Your task to perform on an android device: Open Android settings Image 0: 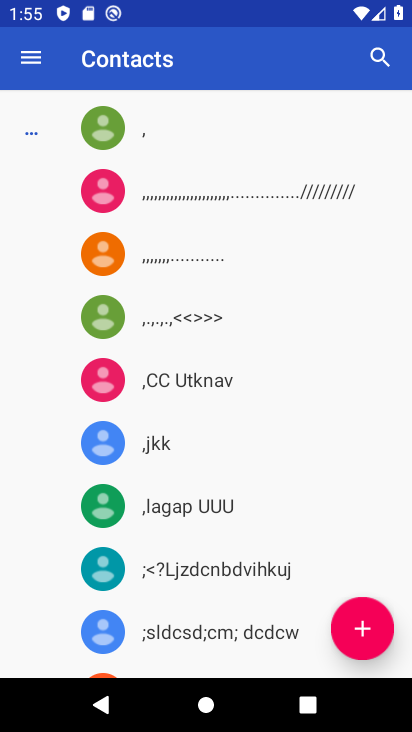
Step 0: press home button
Your task to perform on an android device: Open Android settings Image 1: 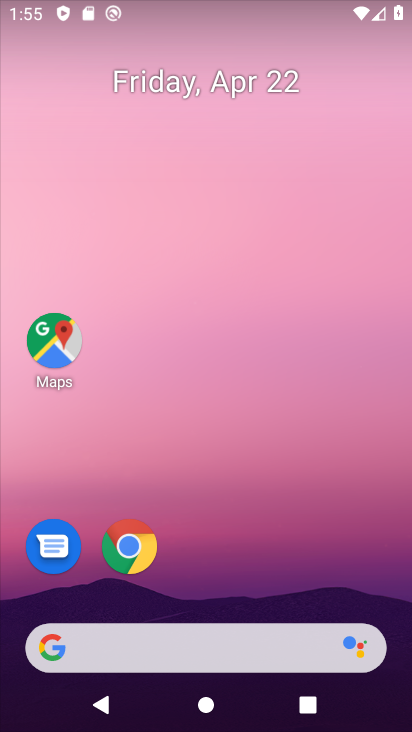
Step 1: drag from (246, 467) to (297, 125)
Your task to perform on an android device: Open Android settings Image 2: 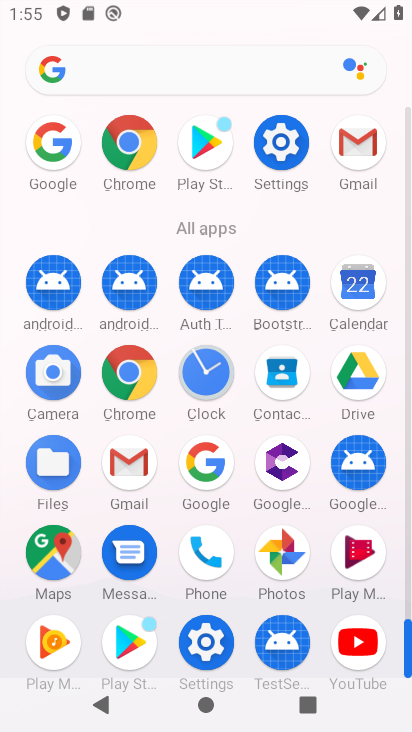
Step 2: click (280, 173)
Your task to perform on an android device: Open Android settings Image 3: 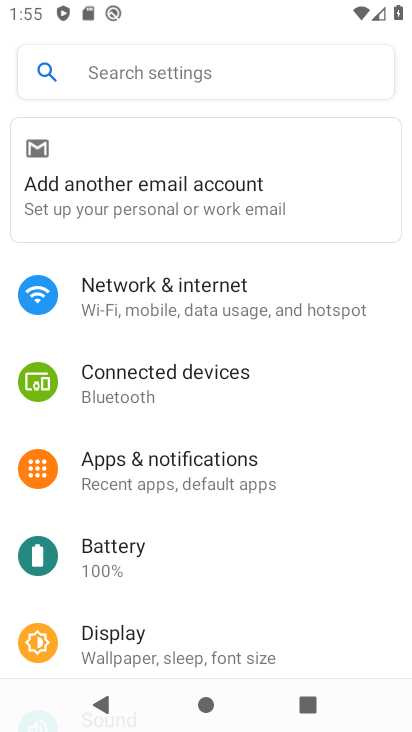
Step 3: drag from (229, 487) to (300, 183)
Your task to perform on an android device: Open Android settings Image 4: 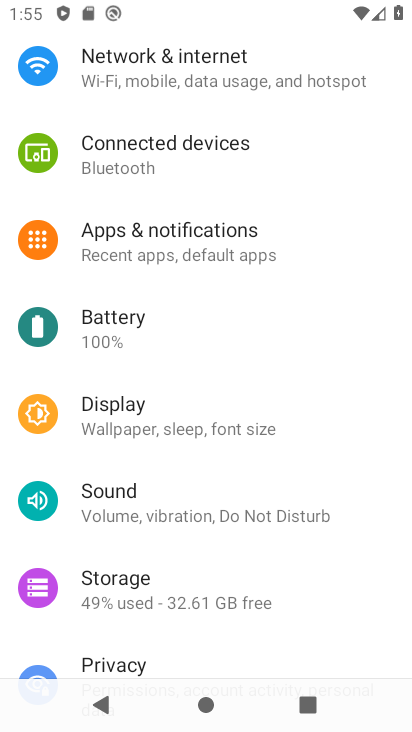
Step 4: drag from (237, 565) to (291, 175)
Your task to perform on an android device: Open Android settings Image 5: 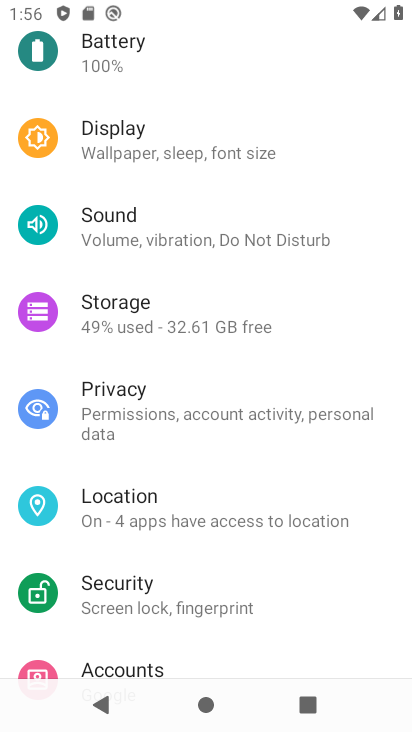
Step 5: drag from (212, 579) to (259, 175)
Your task to perform on an android device: Open Android settings Image 6: 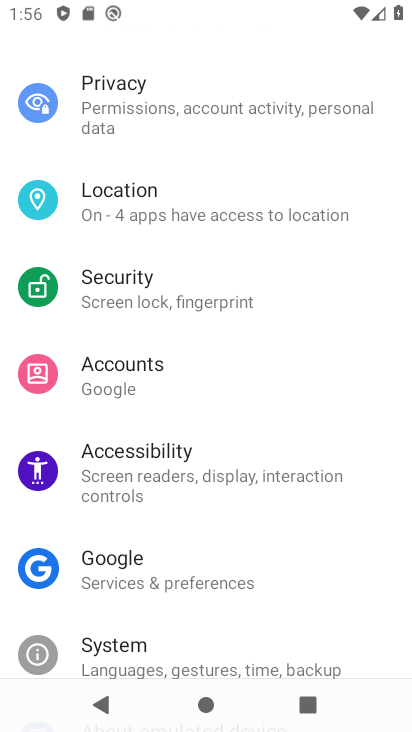
Step 6: drag from (230, 471) to (246, 267)
Your task to perform on an android device: Open Android settings Image 7: 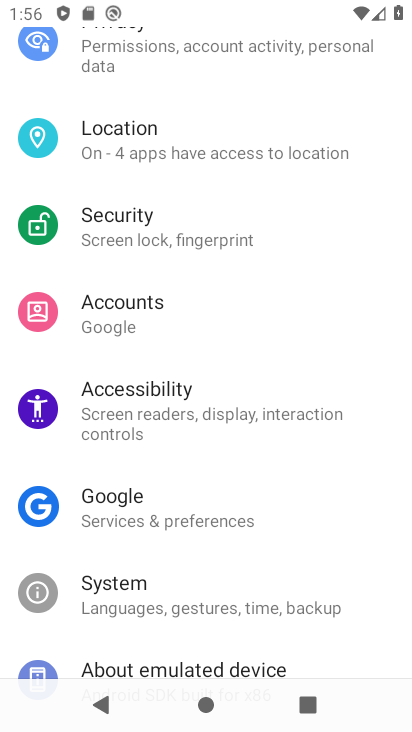
Step 7: drag from (223, 458) to (273, 167)
Your task to perform on an android device: Open Android settings Image 8: 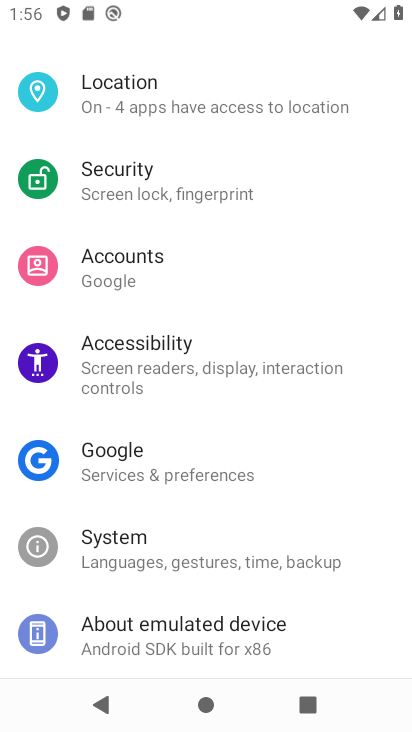
Step 8: click (222, 641)
Your task to perform on an android device: Open Android settings Image 9: 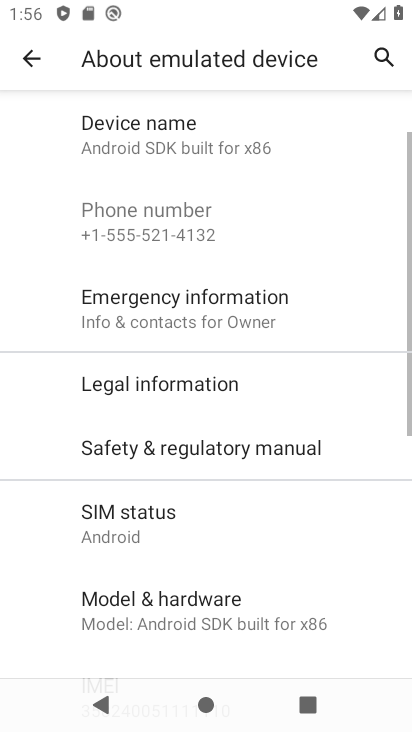
Step 9: drag from (251, 552) to (301, 236)
Your task to perform on an android device: Open Android settings Image 10: 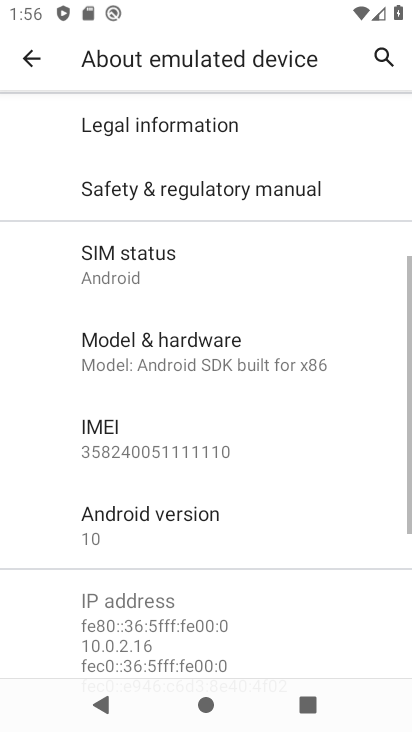
Step 10: click (230, 539)
Your task to perform on an android device: Open Android settings Image 11: 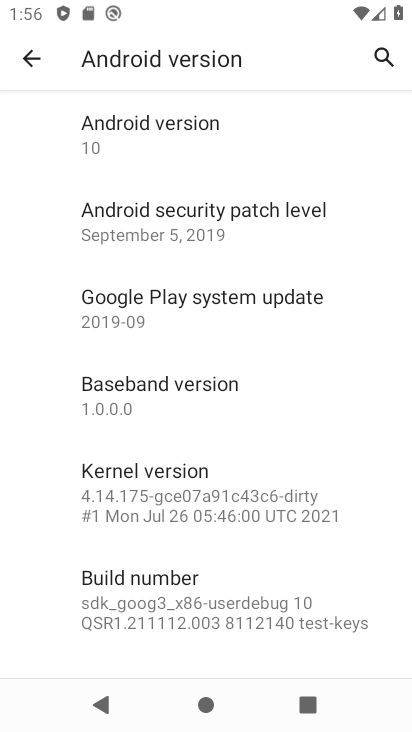
Step 11: task complete